Your task to perform on an android device: Open Youtube and go to the subscriptions tab Image 0: 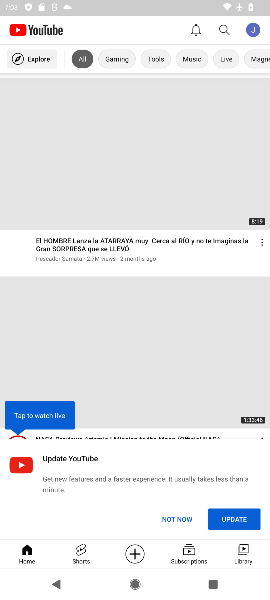
Step 0: press home button
Your task to perform on an android device: Open Youtube and go to the subscriptions tab Image 1: 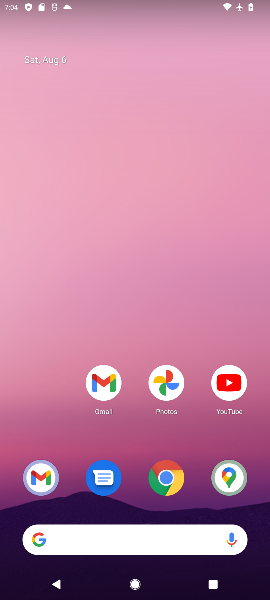
Step 1: click (229, 374)
Your task to perform on an android device: Open Youtube and go to the subscriptions tab Image 2: 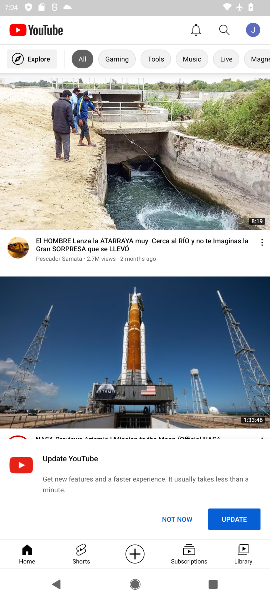
Step 2: click (190, 550)
Your task to perform on an android device: Open Youtube and go to the subscriptions tab Image 3: 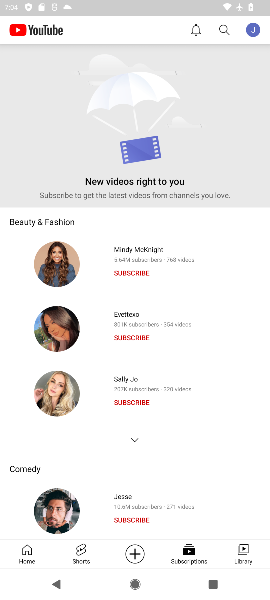
Step 3: task complete